Your task to perform on an android device: read, delete, or share a saved page in the chrome app Image 0: 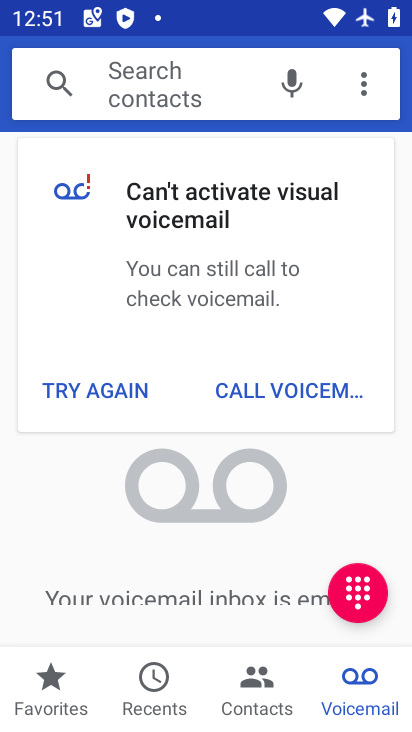
Step 0: press home button
Your task to perform on an android device: read, delete, or share a saved page in the chrome app Image 1: 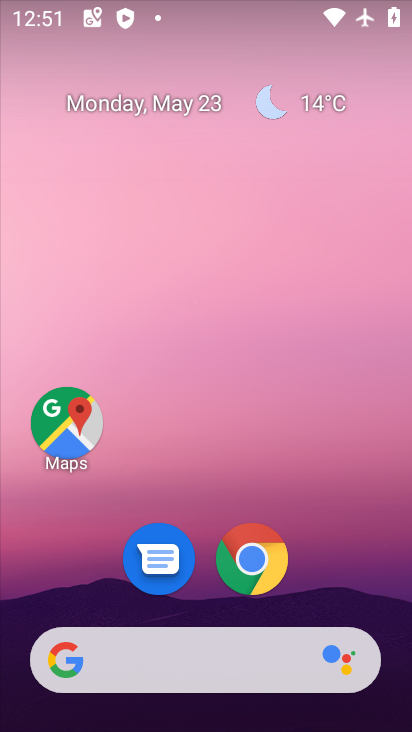
Step 1: click (257, 565)
Your task to perform on an android device: read, delete, or share a saved page in the chrome app Image 2: 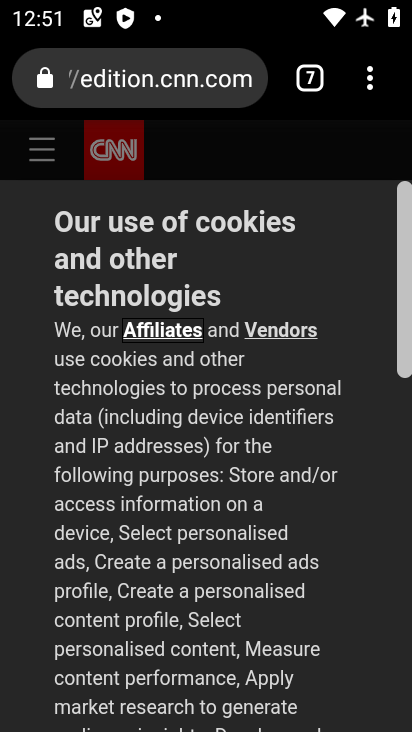
Step 2: click (374, 81)
Your task to perform on an android device: read, delete, or share a saved page in the chrome app Image 3: 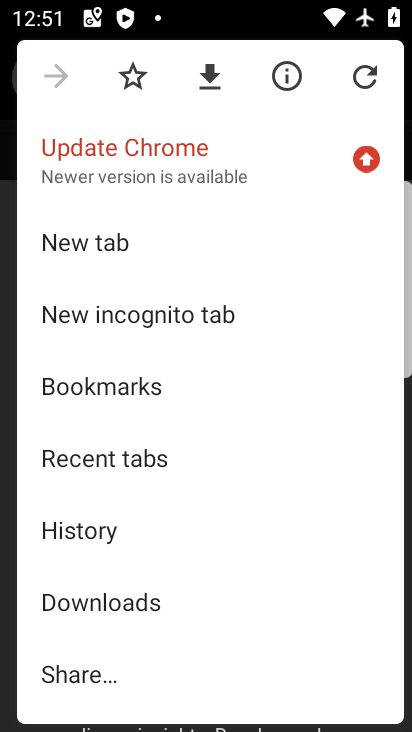
Step 3: click (112, 603)
Your task to perform on an android device: read, delete, or share a saved page in the chrome app Image 4: 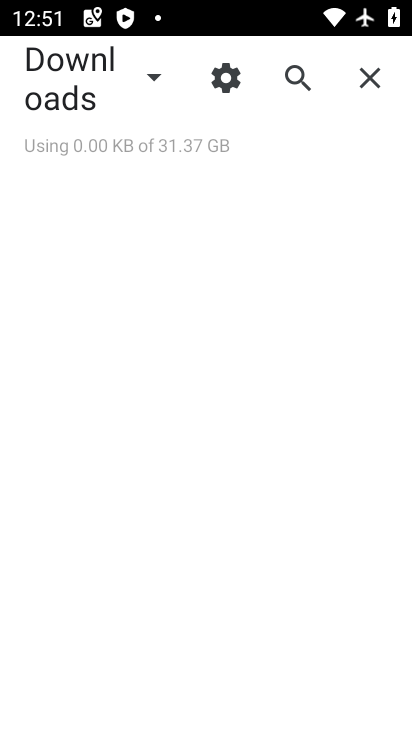
Step 4: click (150, 77)
Your task to perform on an android device: read, delete, or share a saved page in the chrome app Image 5: 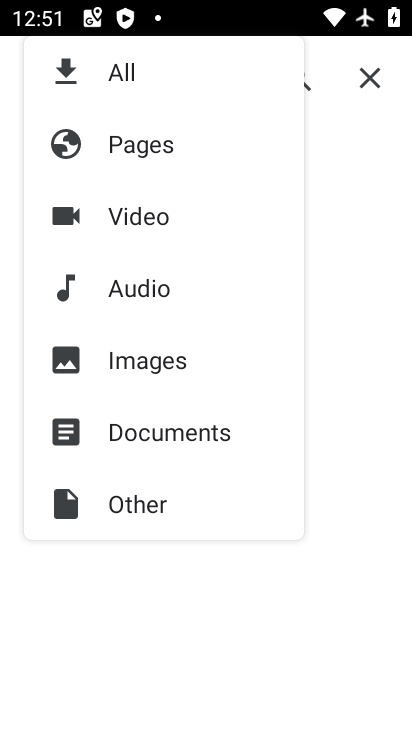
Step 5: click (140, 145)
Your task to perform on an android device: read, delete, or share a saved page in the chrome app Image 6: 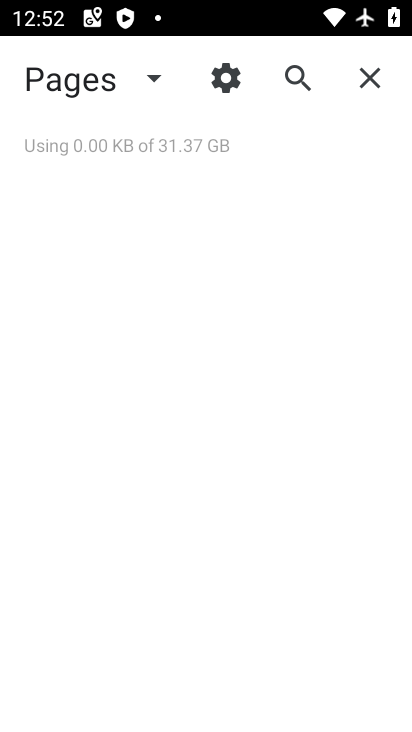
Step 6: task complete